Your task to perform on an android device: Go to Reddit.com Image 0: 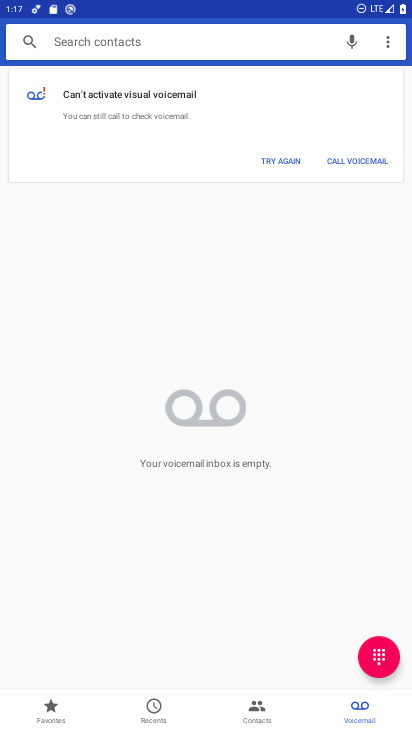
Step 0: press home button
Your task to perform on an android device: Go to Reddit.com Image 1: 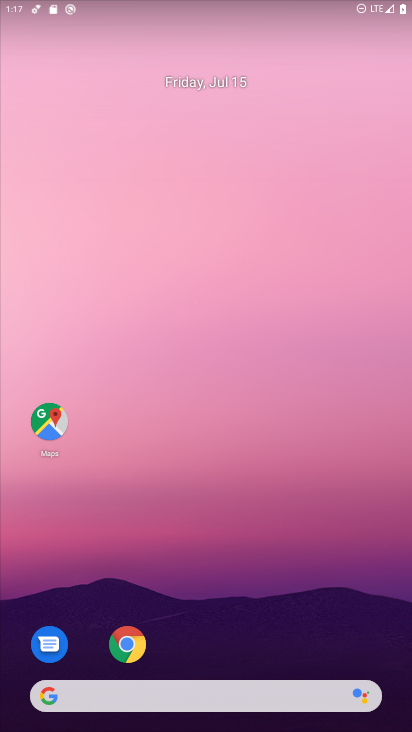
Step 1: click (230, 680)
Your task to perform on an android device: Go to Reddit.com Image 2: 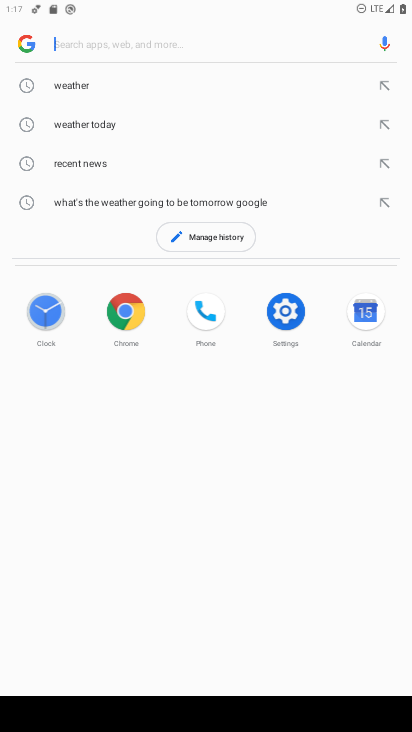
Step 2: click (163, 42)
Your task to perform on an android device: Go to Reddit.com Image 3: 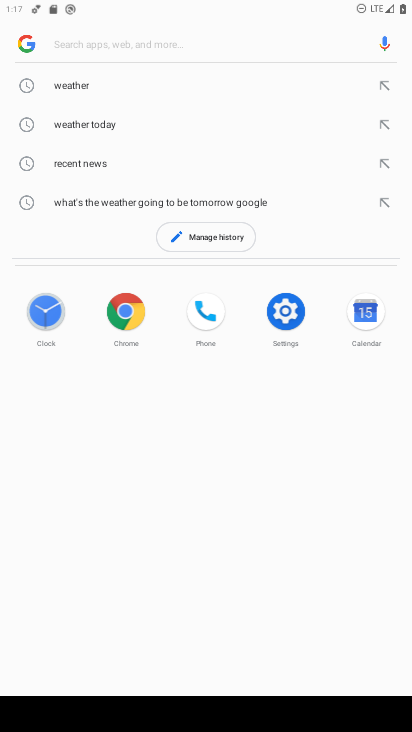
Step 3: click (200, 43)
Your task to perform on an android device: Go to Reddit.com Image 4: 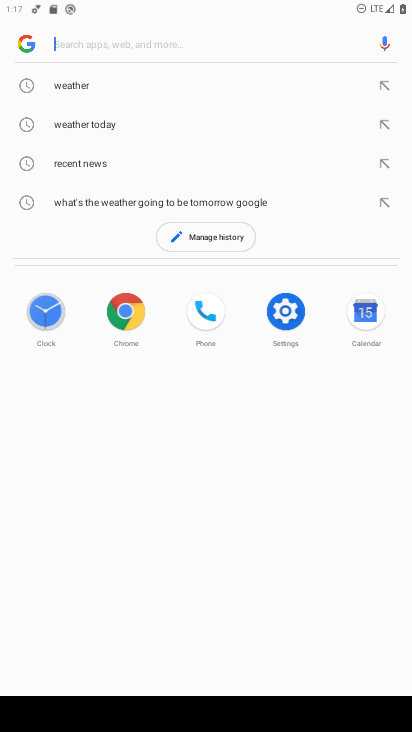
Step 4: type "Reddit.com"
Your task to perform on an android device: Go to Reddit.com Image 5: 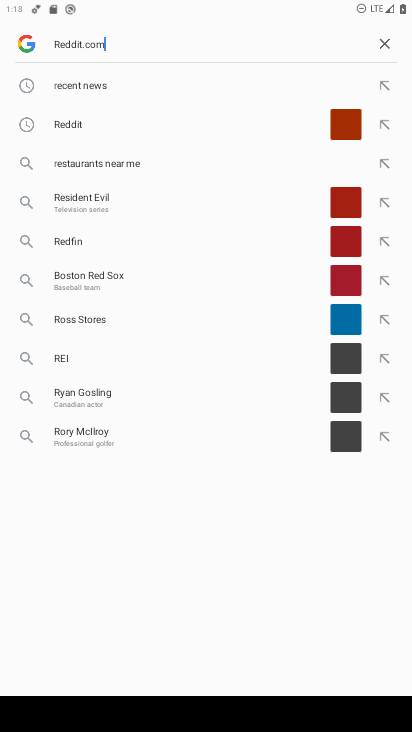
Step 5: type ""
Your task to perform on an android device: Go to Reddit.com Image 6: 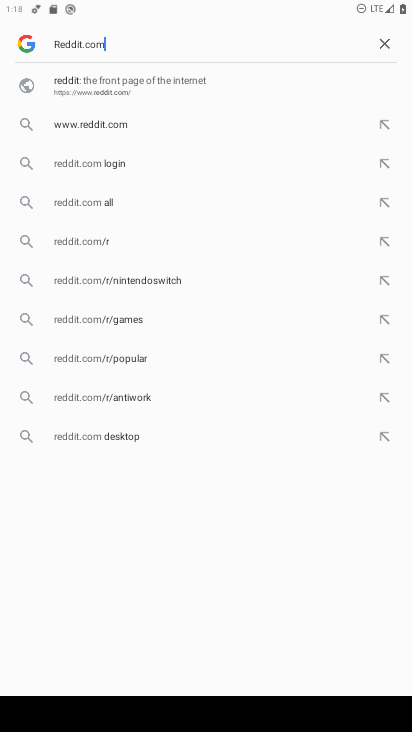
Step 6: click (156, 93)
Your task to perform on an android device: Go to Reddit.com Image 7: 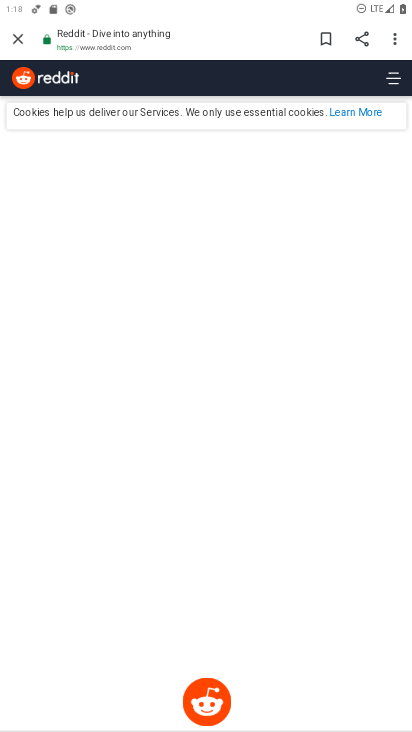
Step 7: task complete